Your task to perform on an android device: change notifications settings Image 0: 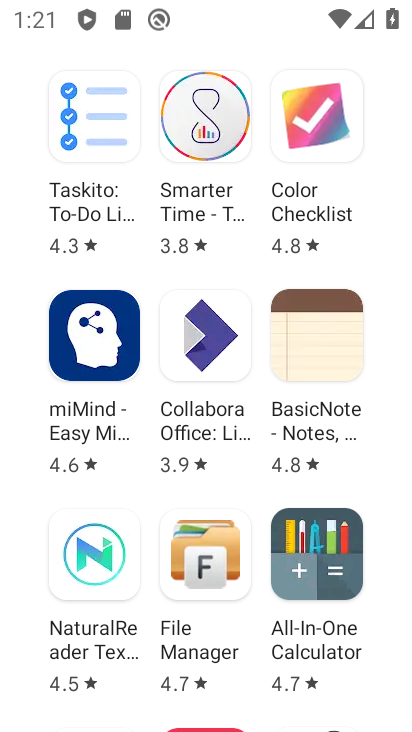
Step 0: press home button
Your task to perform on an android device: change notifications settings Image 1: 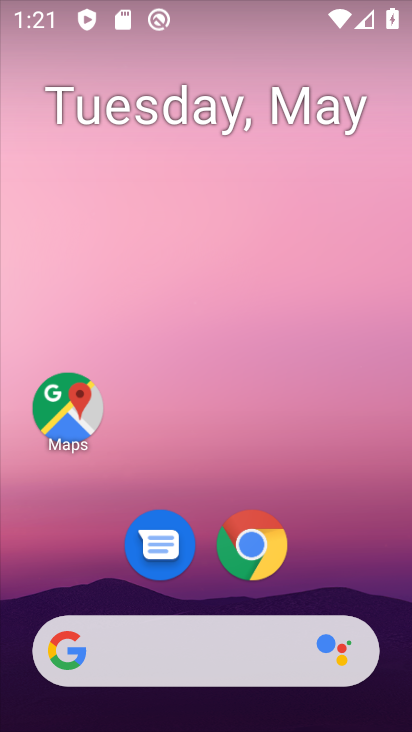
Step 1: drag from (390, 621) to (358, 95)
Your task to perform on an android device: change notifications settings Image 2: 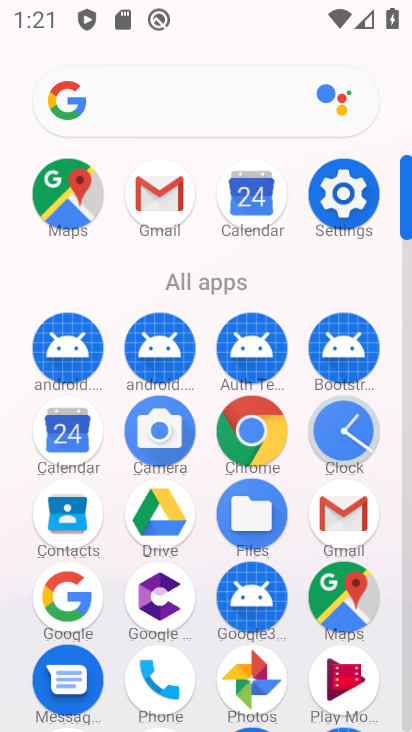
Step 2: click (407, 699)
Your task to perform on an android device: change notifications settings Image 3: 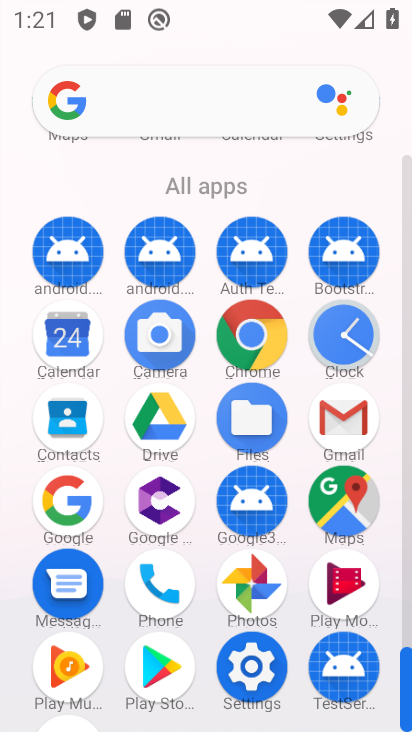
Step 3: click (250, 669)
Your task to perform on an android device: change notifications settings Image 4: 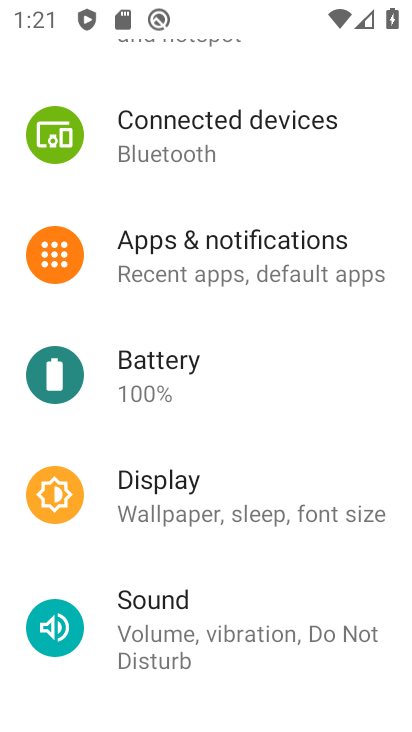
Step 4: click (216, 246)
Your task to perform on an android device: change notifications settings Image 5: 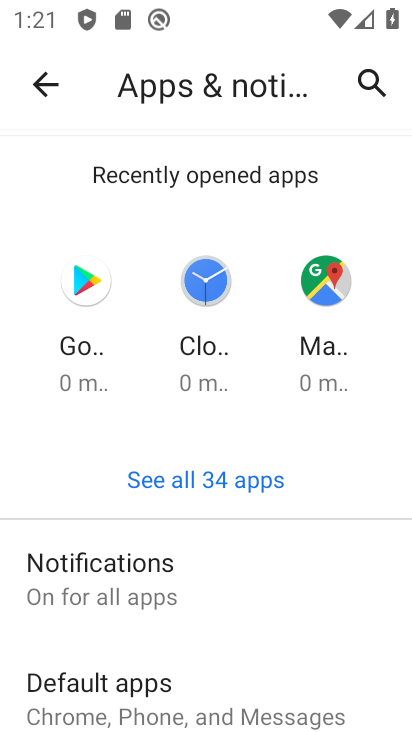
Step 5: click (114, 575)
Your task to perform on an android device: change notifications settings Image 6: 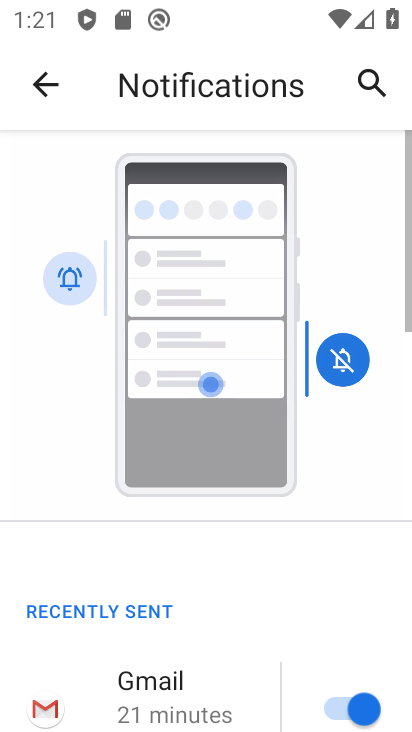
Step 6: drag from (264, 641) to (229, 144)
Your task to perform on an android device: change notifications settings Image 7: 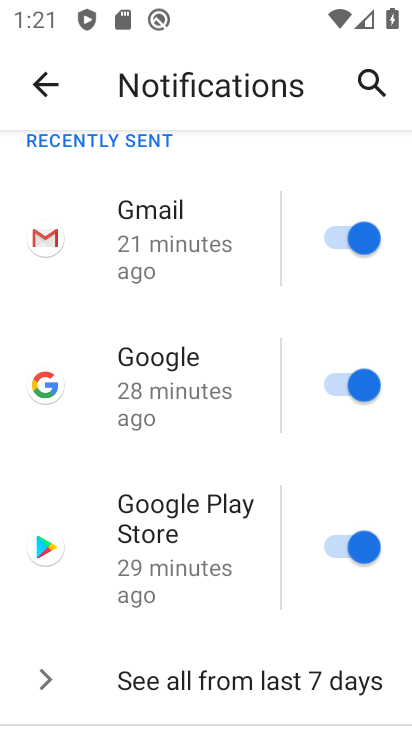
Step 7: drag from (270, 655) to (262, 122)
Your task to perform on an android device: change notifications settings Image 8: 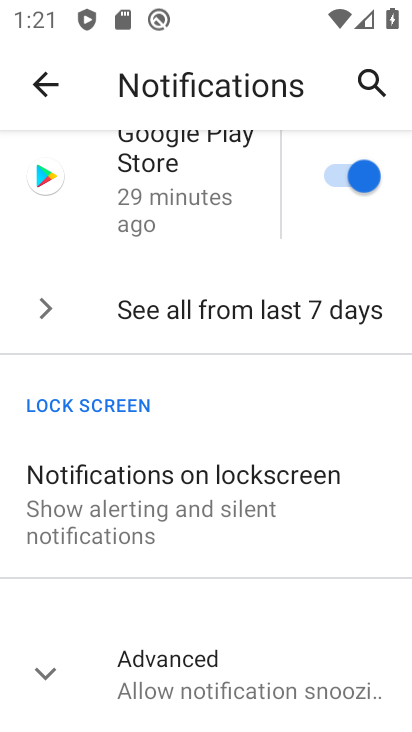
Step 8: click (41, 669)
Your task to perform on an android device: change notifications settings Image 9: 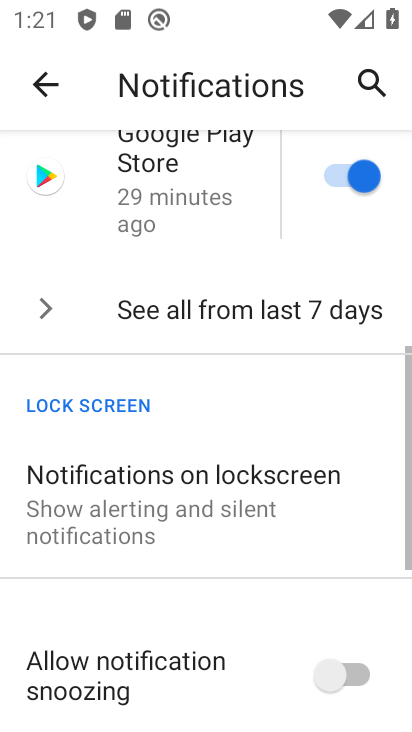
Step 9: drag from (324, 656) to (269, 168)
Your task to perform on an android device: change notifications settings Image 10: 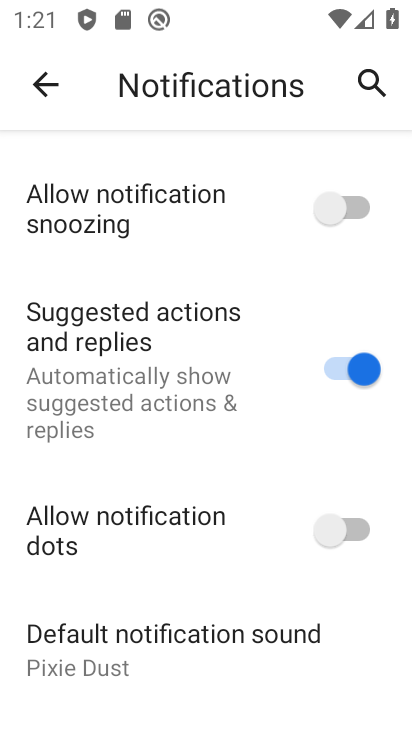
Step 10: click (353, 199)
Your task to perform on an android device: change notifications settings Image 11: 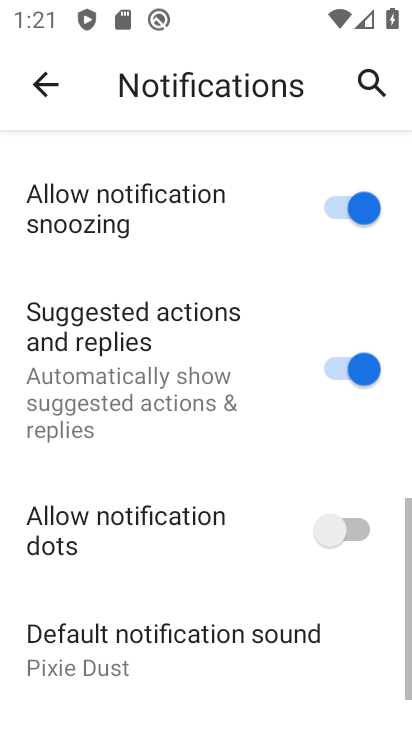
Step 11: click (354, 538)
Your task to perform on an android device: change notifications settings Image 12: 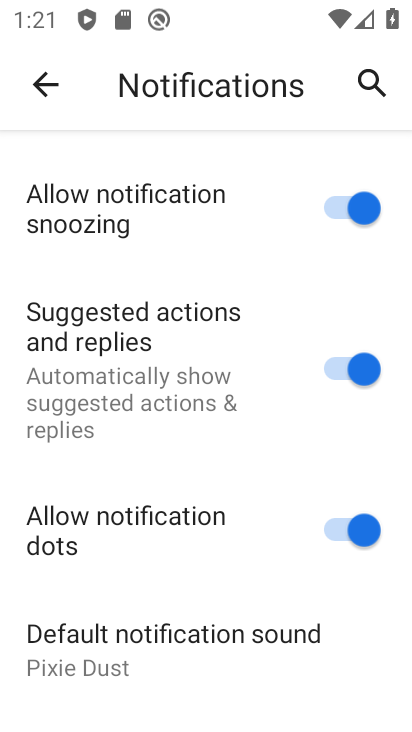
Step 12: task complete